Your task to perform on an android device: Go to sound settings Image 0: 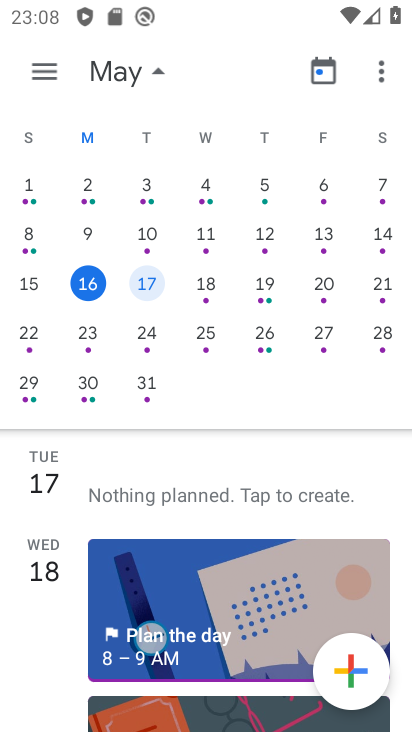
Step 0: press home button
Your task to perform on an android device: Go to sound settings Image 1: 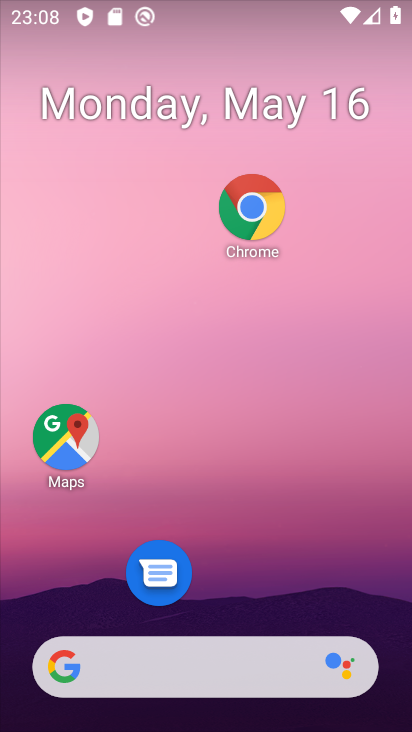
Step 1: drag from (277, 566) to (278, 1)
Your task to perform on an android device: Go to sound settings Image 2: 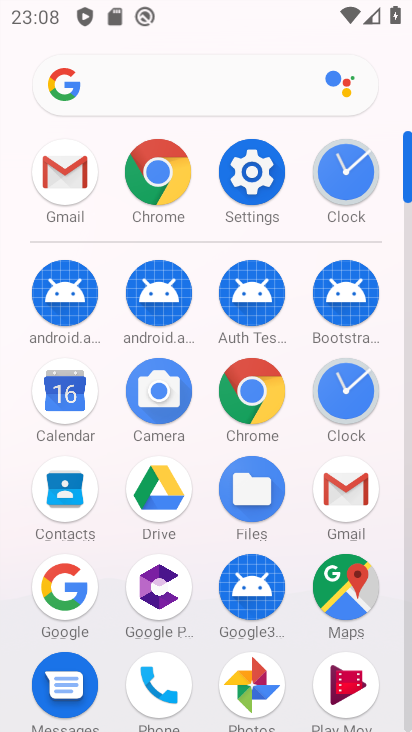
Step 2: click (260, 194)
Your task to perform on an android device: Go to sound settings Image 3: 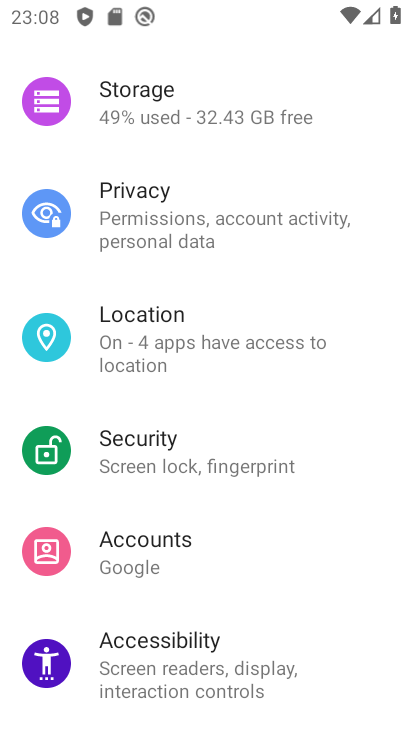
Step 3: drag from (183, 142) to (263, 629)
Your task to perform on an android device: Go to sound settings Image 4: 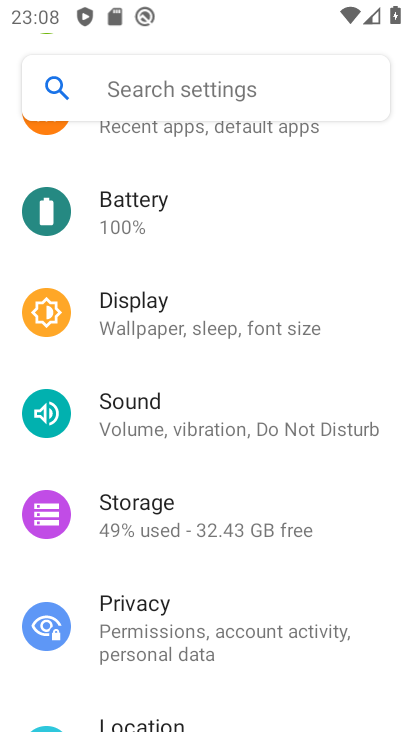
Step 4: click (172, 406)
Your task to perform on an android device: Go to sound settings Image 5: 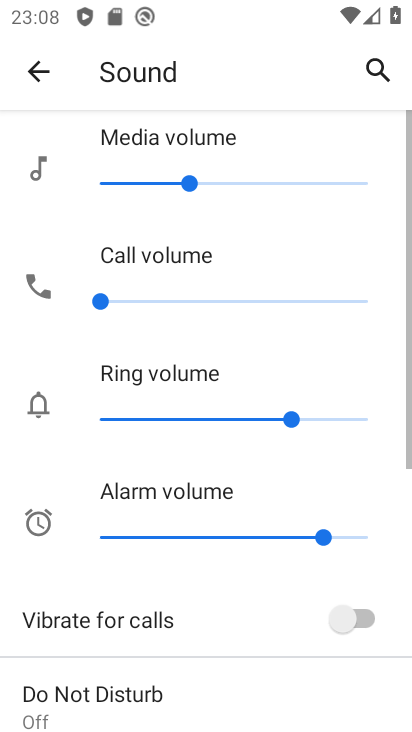
Step 5: task complete